Your task to perform on an android device: turn pop-ups off in chrome Image 0: 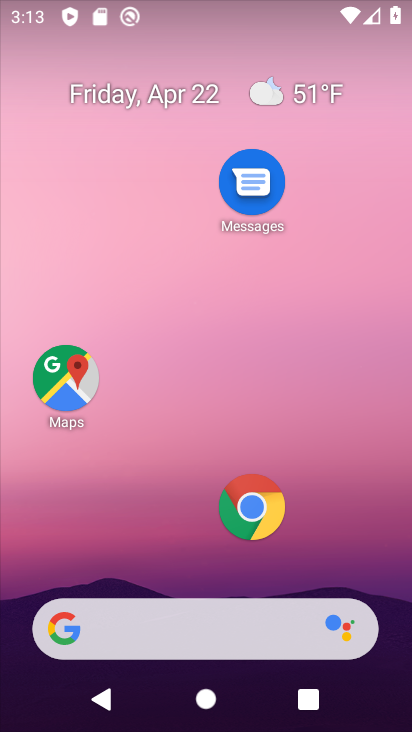
Step 0: drag from (171, 605) to (274, 67)
Your task to perform on an android device: turn pop-ups off in chrome Image 1: 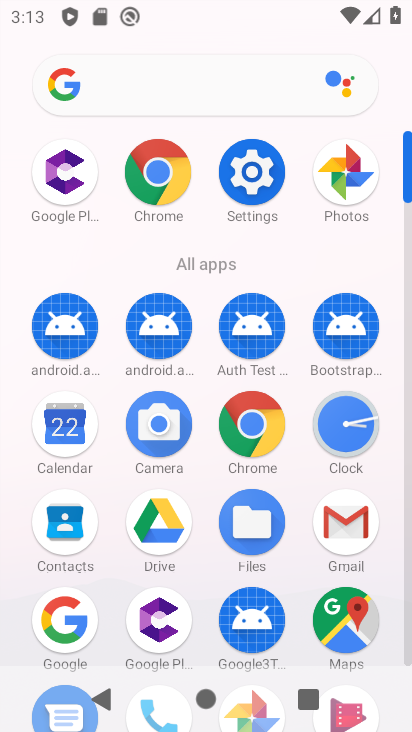
Step 1: click (171, 173)
Your task to perform on an android device: turn pop-ups off in chrome Image 2: 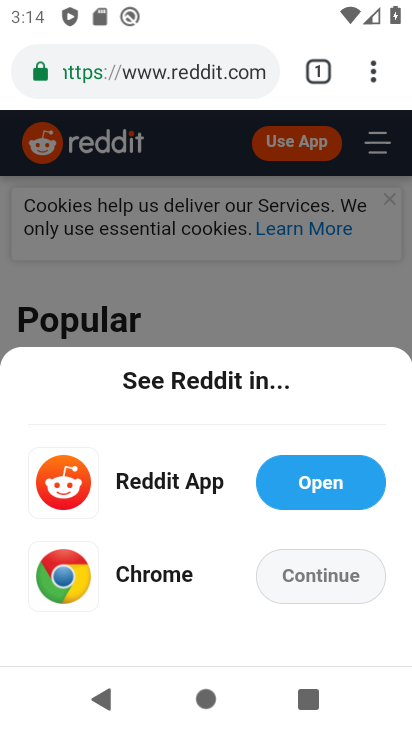
Step 2: click (372, 76)
Your task to perform on an android device: turn pop-ups off in chrome Image 3: 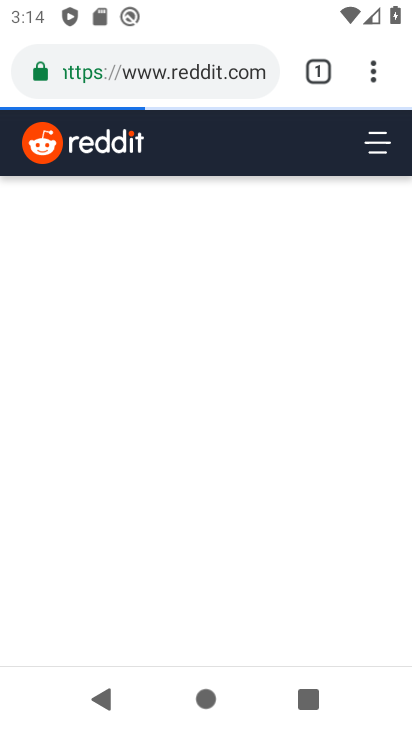
Step 3: drag from (376, 69) to (124, 509)
Your task to perform on an android device: turn pop-ups off in chrome Image 4: 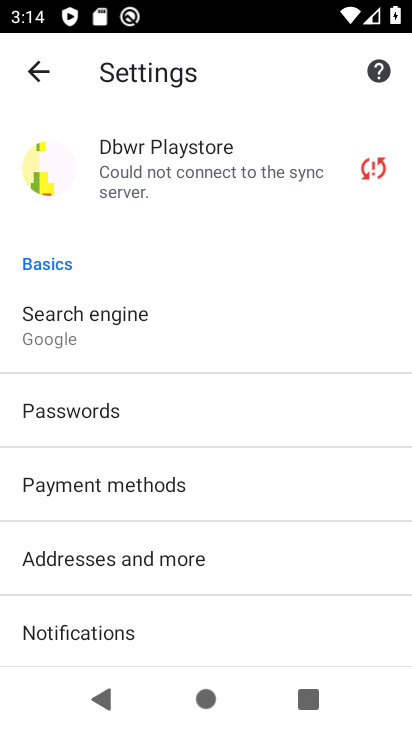
Step 4: drag from (123, 643) to (258, 223)
Your task to perform on an android device: turn pop-ups off in chrome Image 5: 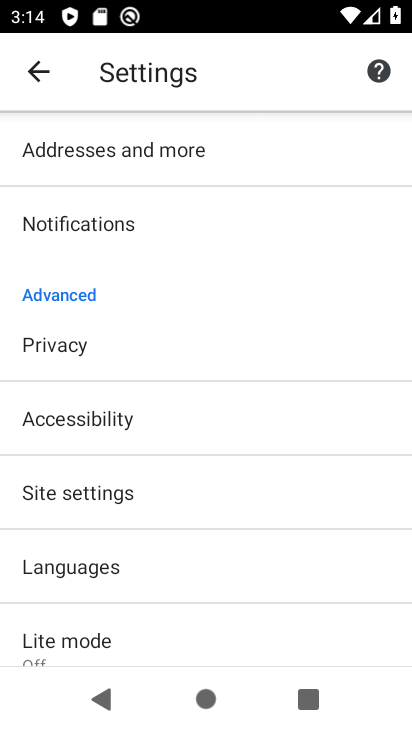
Step 5: click (67, 502)
Your task to perform on an android device: turn pop-ups off in chrome Image 6: 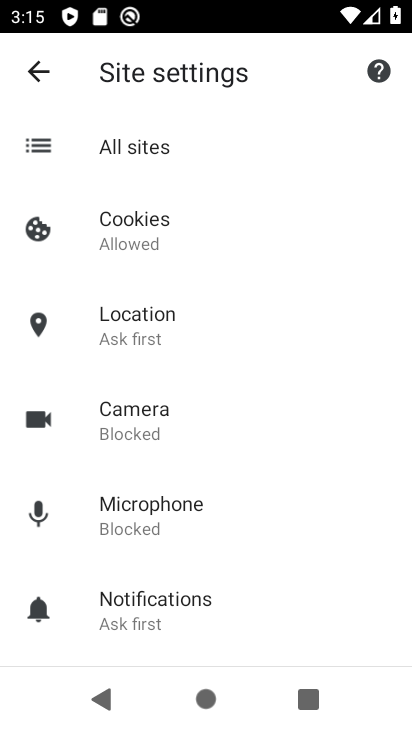
Step 6: drag from (186, 550) to (252, 120)
Your task to perform on an android device: turn pop-ups off in chrome Image 7: 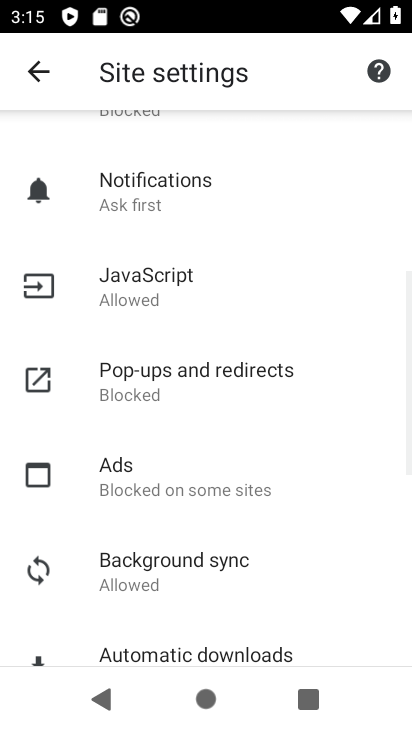
Step 7: click (178, 384)
Your task to perform on an android device: turn pop-ups off in chrome Image 8: 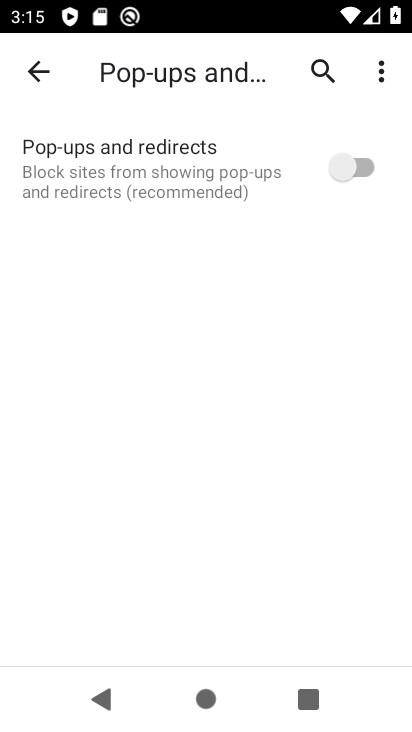
Step 8: task complete